Your task to perform on an android device: turn notification dots off Image 0: 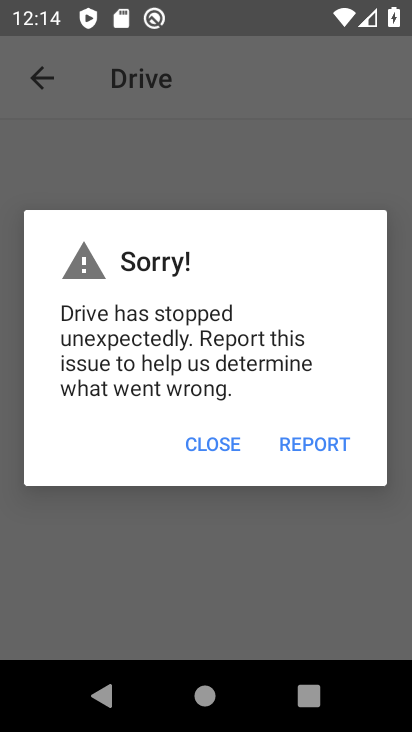
Step 0: press home button
Your task to perform on an android device: turn notification dots off Image 1: 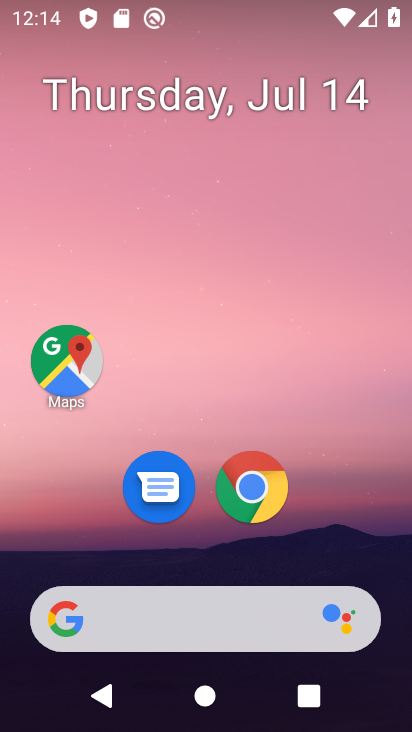
Step 1: drag from (200, 642) to (213, 86)
Your task to perform on an android device: turn notification dots off Image 2: 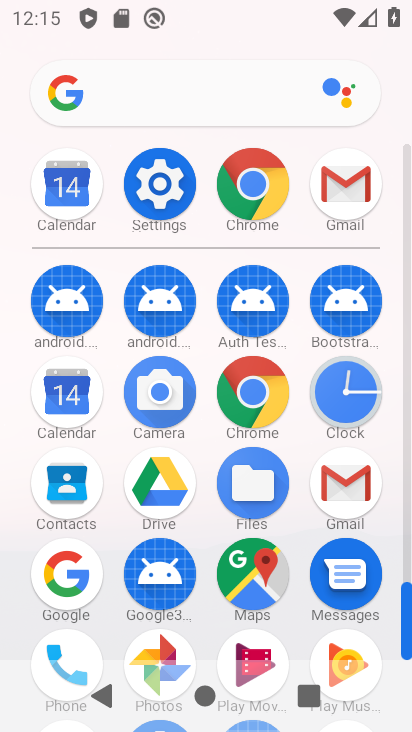
Step 2: click (169, 181)
Your task to perform on an android device: turn notification dots off Image 3: 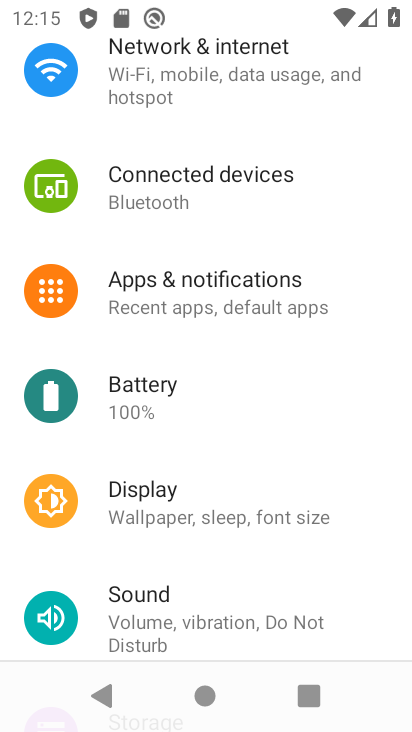
Step 3: click (208, 303)
Your task to perform on an android device: turn notification dots off Image 4: 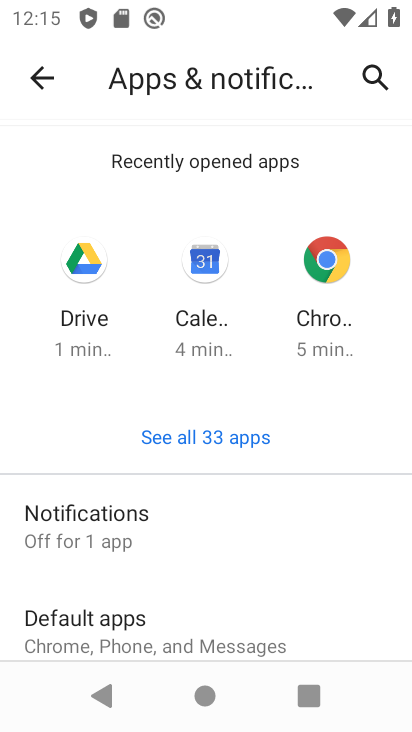
Step 4: click (158, 531)
Your task to perform on an android device: turn notification dots off Image 5: 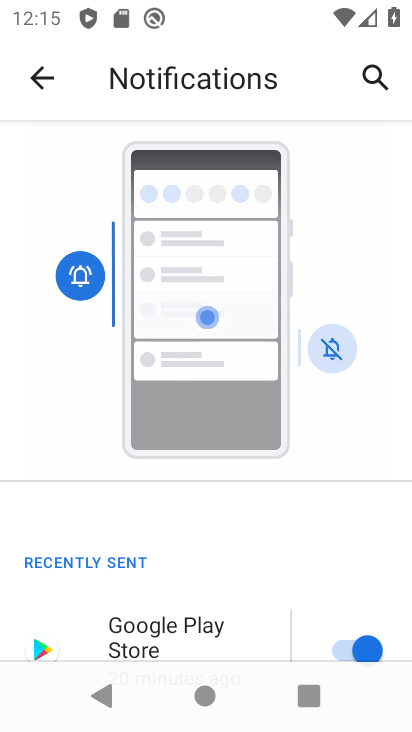
Step 5: drag from (223, 569) to (270, 221)
Your task to perform on an android device: turn notification dots off Image 6: 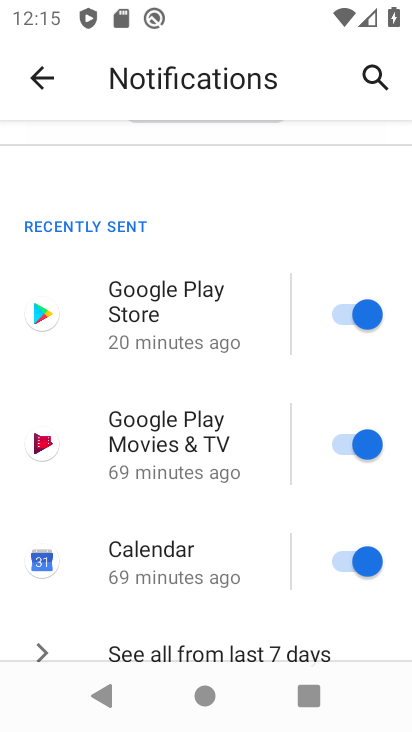
Step 6: drag from (207, 546) to (187, 114)
Your task to perform on an android device: turn notification dots off Image 7: 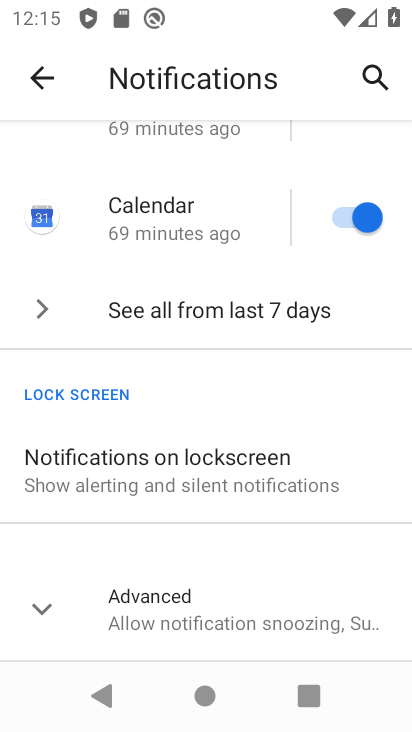
Step 7: click (159, 607)
Your task to perform on an android device: turn notification dots off Image 8: 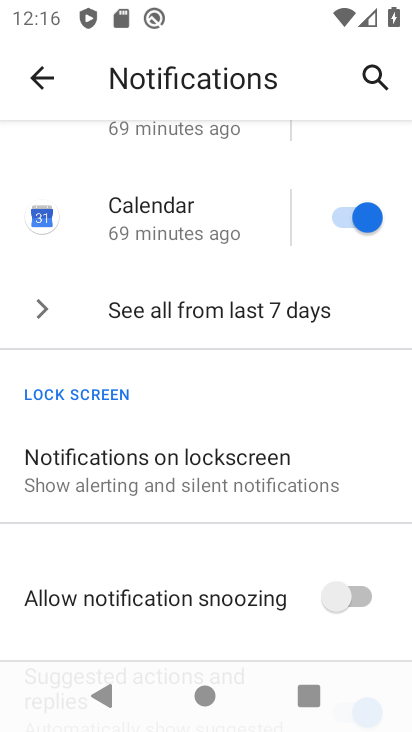
Step 8: task complete